Your task to perform on an android device: Open sound settings Image 0: 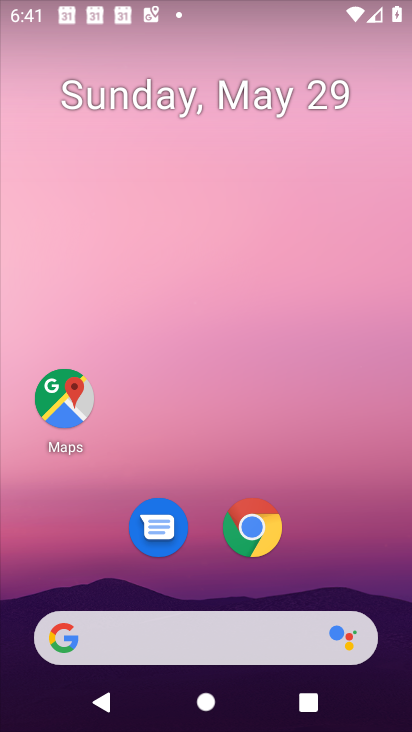
Step 0: drag from (400, 639) to (154, 99)
Your task to perform on an android device: Open sound settings Image 1: 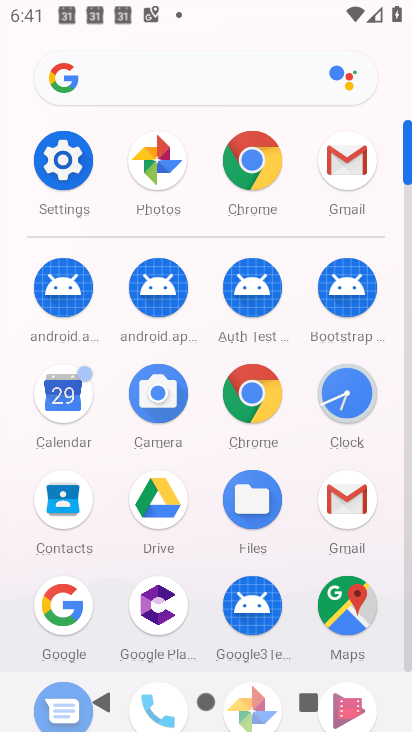
Step 1: click (15, 167)
Your task to perform on an android device: Open sound settings Image 2: 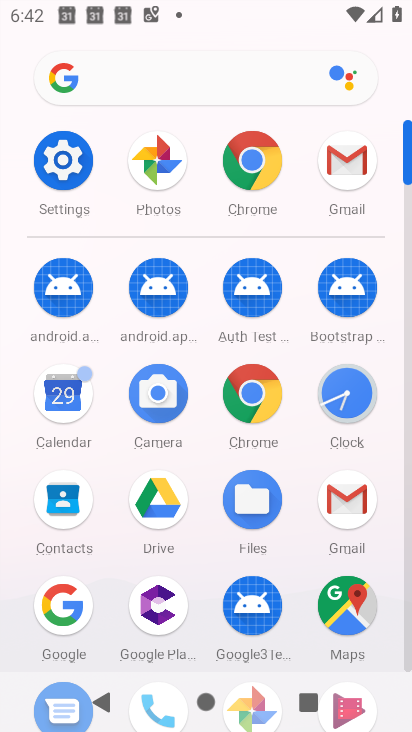
Step 2: click (48, 158)
Your task to perform on an android device: Open sound settings Image 3: 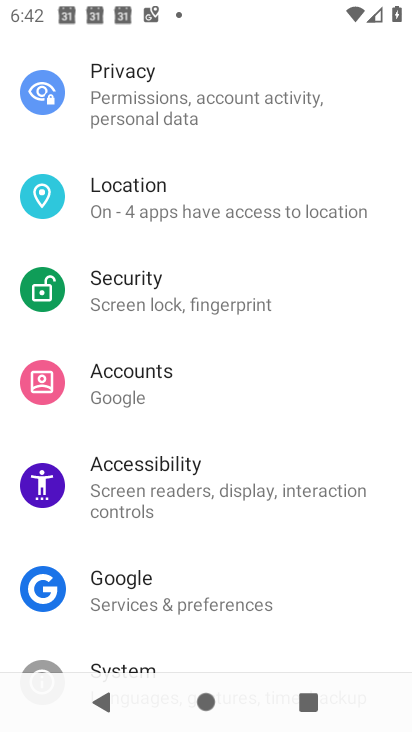
Step 3: drag from (192, 202) to (204, 700)
Your task to perform on an android device: Open sound settings Image 4: 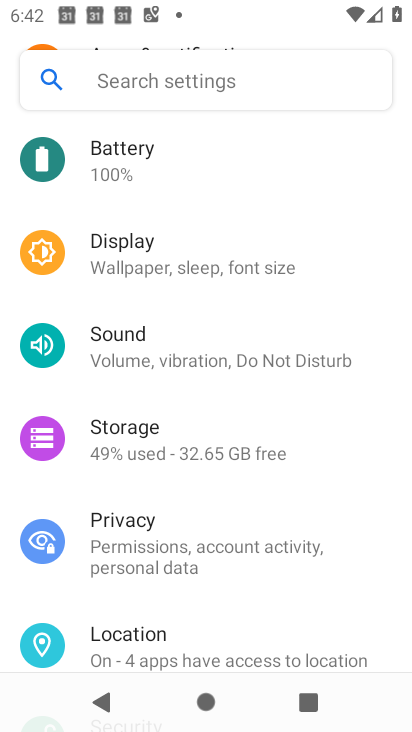
Step 4: click (126, 325)
Your task to perform on an android device: Open sound settings Image 5: 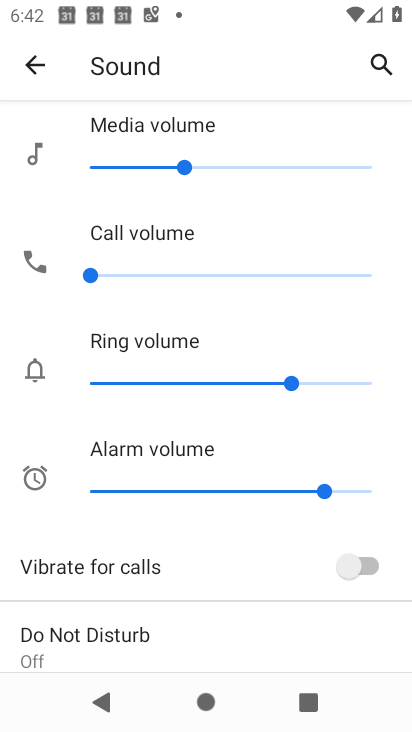
Step 5: task complete